Your task to perform on an android device: Show me popular videos on Youtube Image 0: 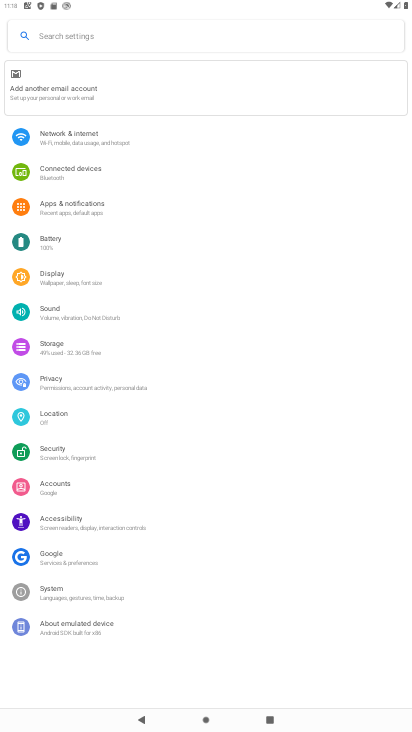
Step 0: press home button
Your task to perform on an android device: Show me popular videos on Youtube Image 1: 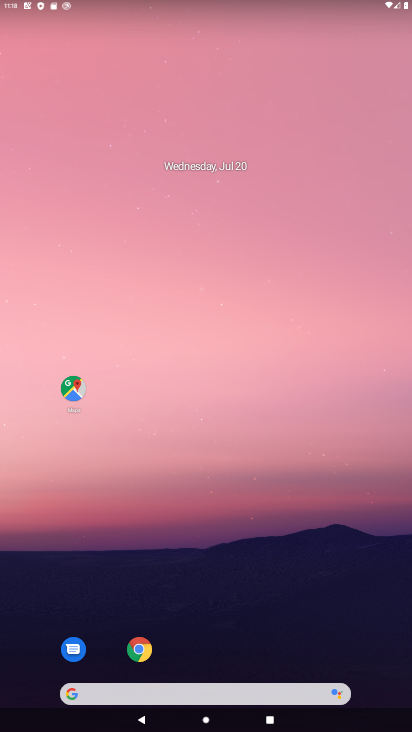
Step 1: drag from (308, 642) to (226, 188)
Your task to perform on an android device: Show me popular videos on Youtube Image 2: 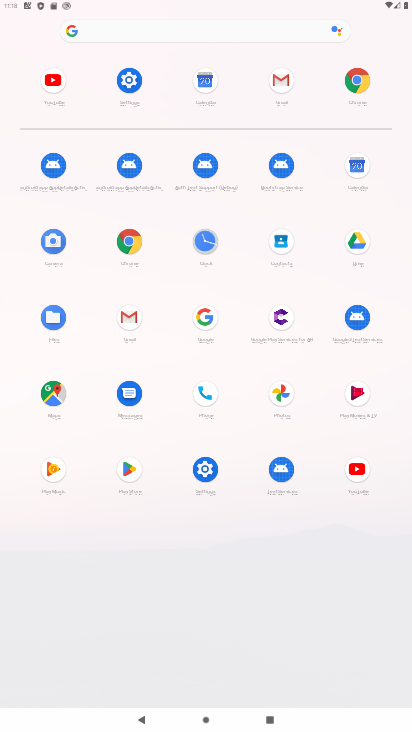
Step 2: click (44, 103)
Your task to perform on an android device: Show me popular videos on Youtube Image 3: 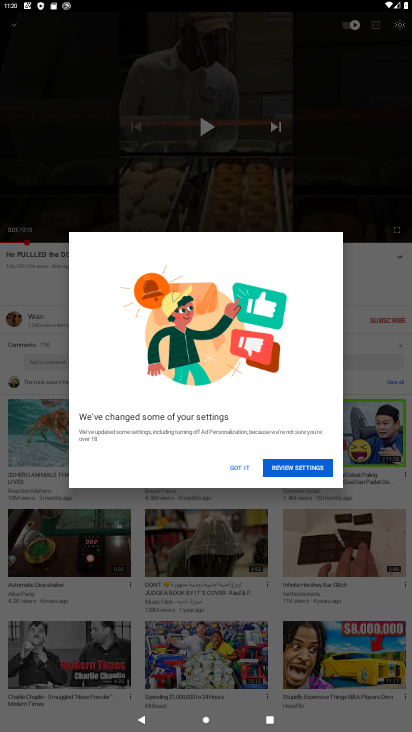
Step 3: task complete